Your task to perform on an android device: toggle location history Image 0: 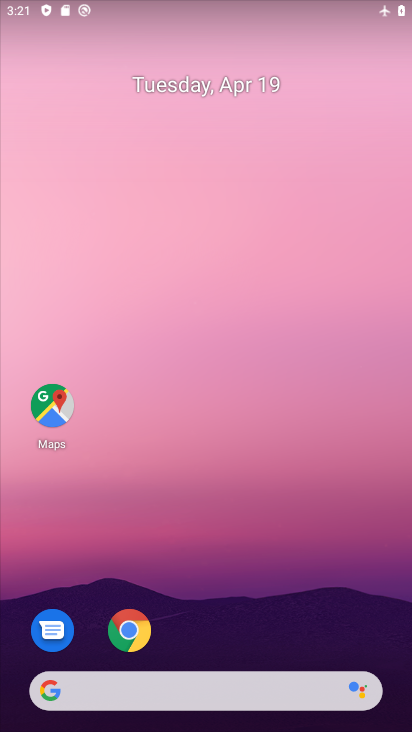
Step 0: drag from (265, 563) to (268, 27)
Your task to perform on an android device: toggle location history Image 1: 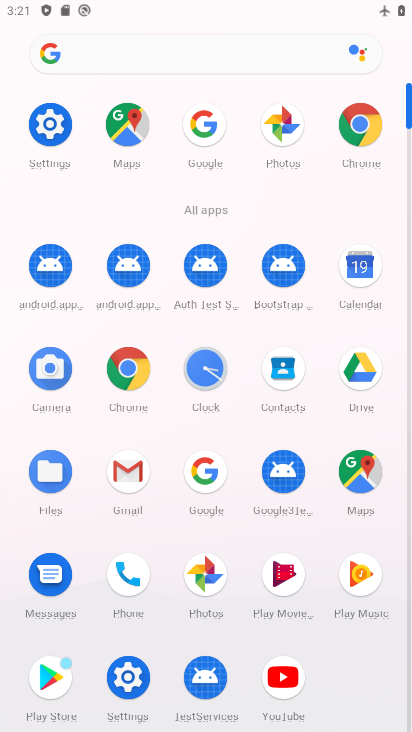
Step 1: click (20, 121)
Your task to perform on an android device: toggle location history Image 2: 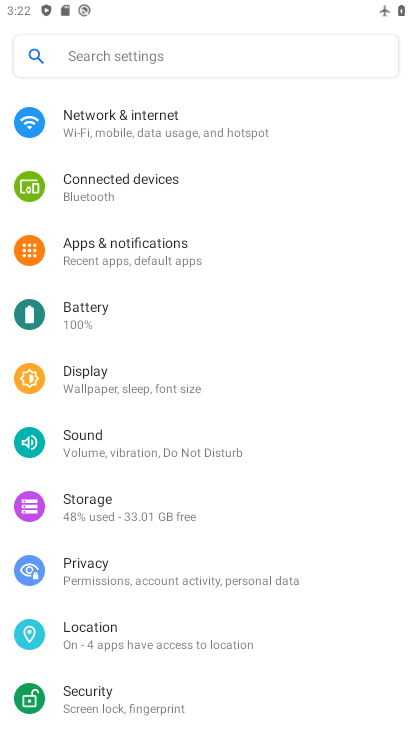
Step 2: drag from (167, 633) to (180, 252)
Your task to perform on an android device: toggle location history Image 3: 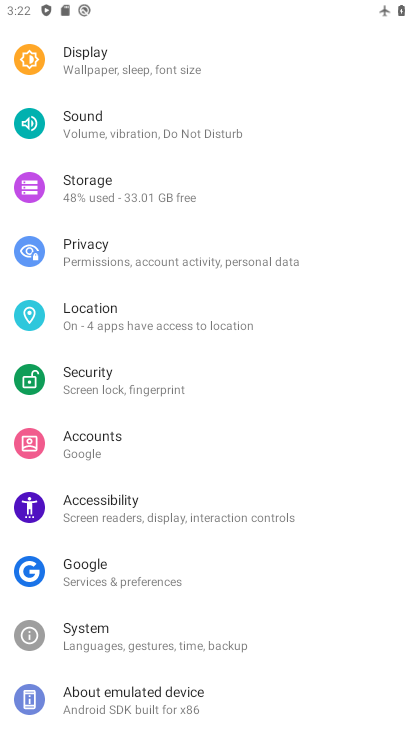
Step 3: click (157, 331)
Your task to perform on an android device: toggle location history Image 4: 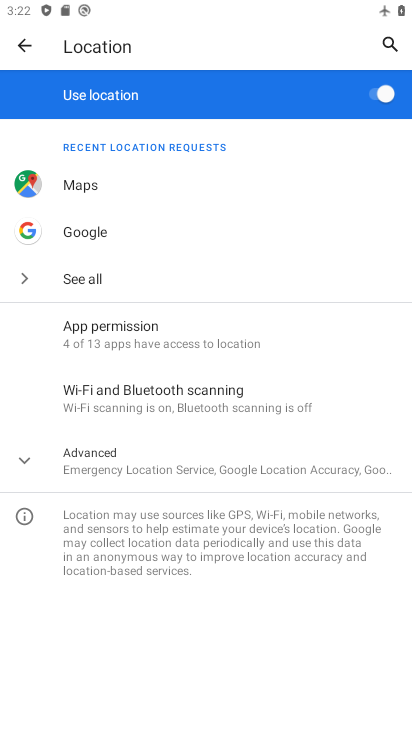
Step 4: click (75, 466)
Your task to perform on an android device: toggle location history Image 5: 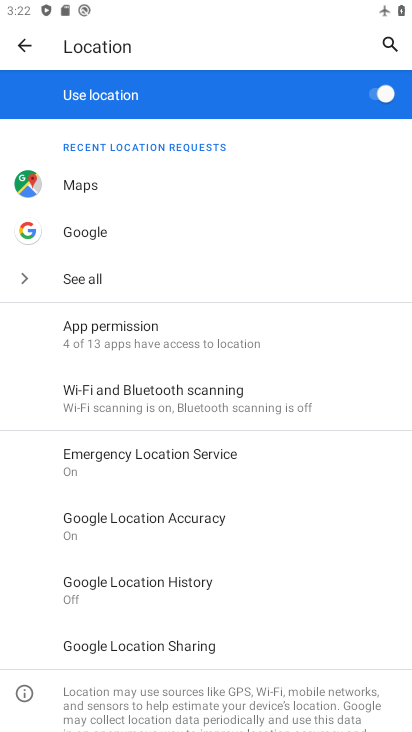
Step 5: click (152, 588)
Your task to perform on an android device: toggle location history Image 6: 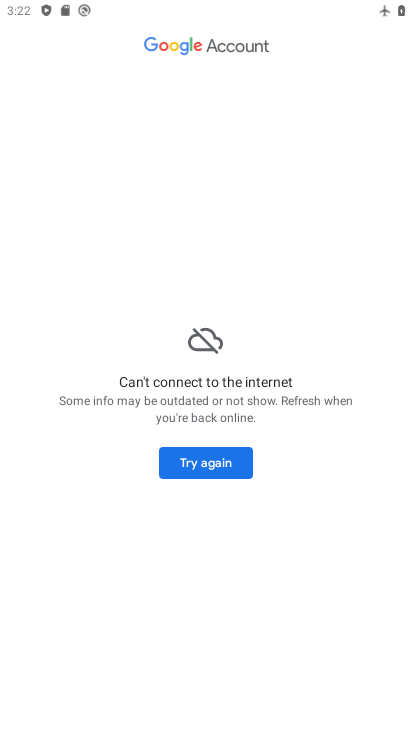
Step 6: click (207, 467)
Your task to perform on an android device: toggle location history Image 7: 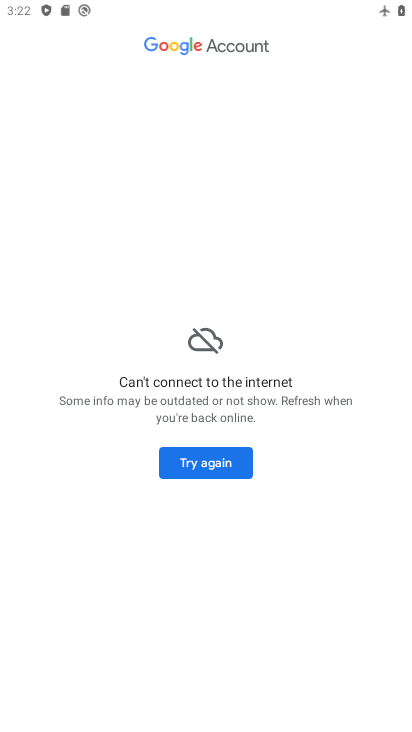
Step 7: task complete